Your task to perform on an android device: turn off picture-in-picture Image 0: 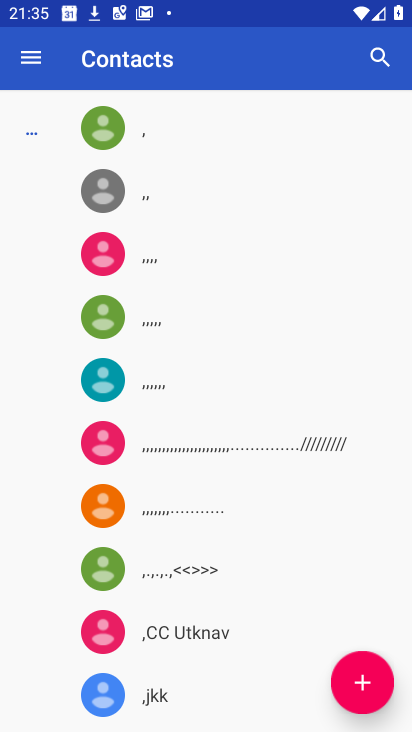
Step 0: press home button
Your task to perform on an android device: turn off picture-in-picture Image 1: 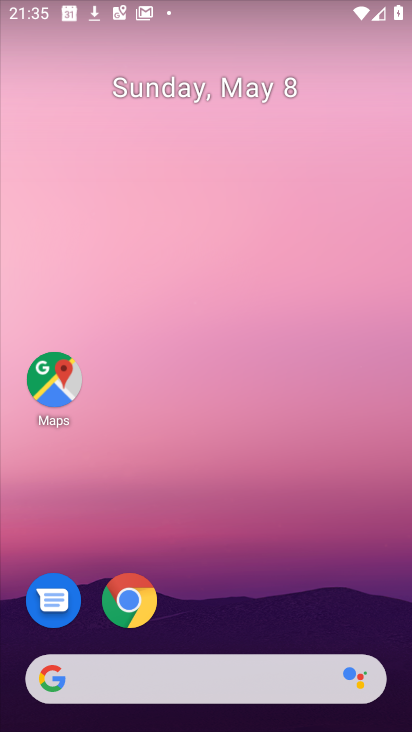
Step 1: drag from (251, 710) to (202, 322)
Your task to perform on an android device: turn off picture-in-picture Image 2: 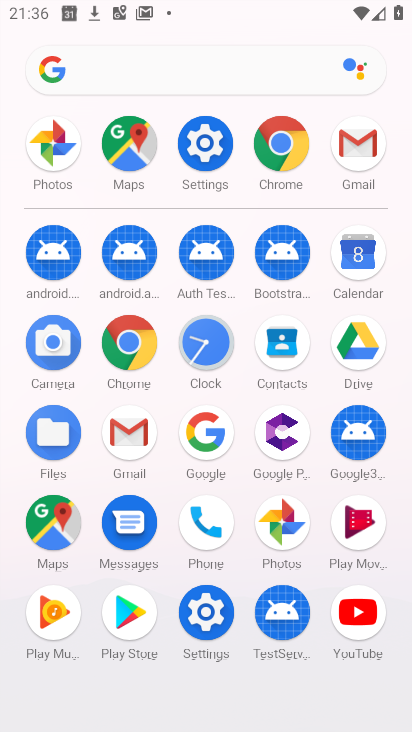
Step 2: click (206, 123)
Your task to perform on an android device: turn off picture-in-picture Image 3: 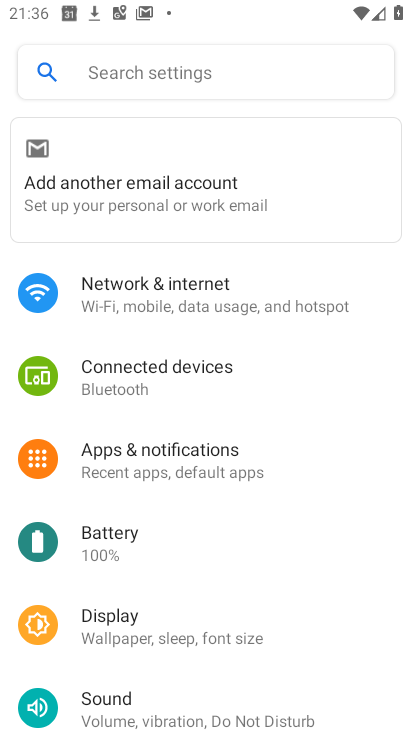
Step 3: click (154, 81)
Your task to perform on an android device: turn off picture-in-picture Image 4: 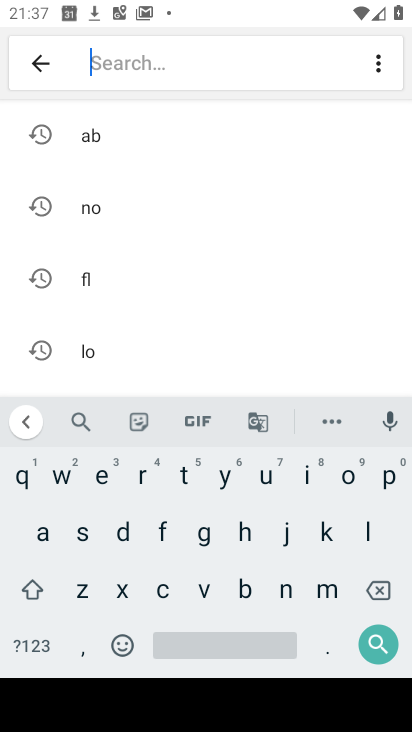
Step 4: click (394, 487)
Your task to perform on an android device: turn off picture-in-picture Image 5: 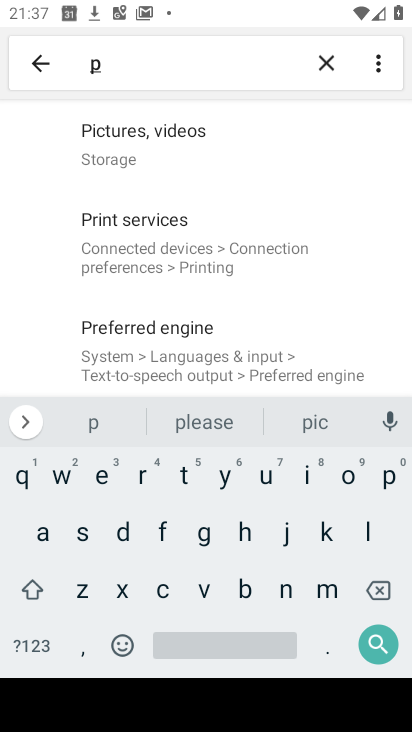
Step 5: click (305, 476)
Your task to perform on an android device: turn off picture-in-picture Image 6: 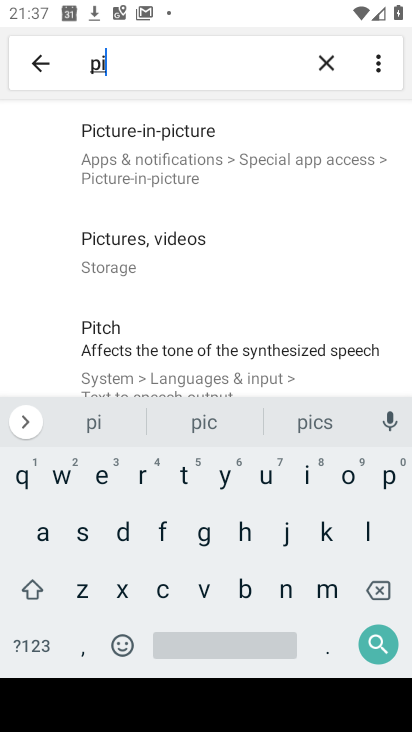
Step 6: click (210, 163)
Your task to perform on an android device: turn off picture-in-picture Image 7: 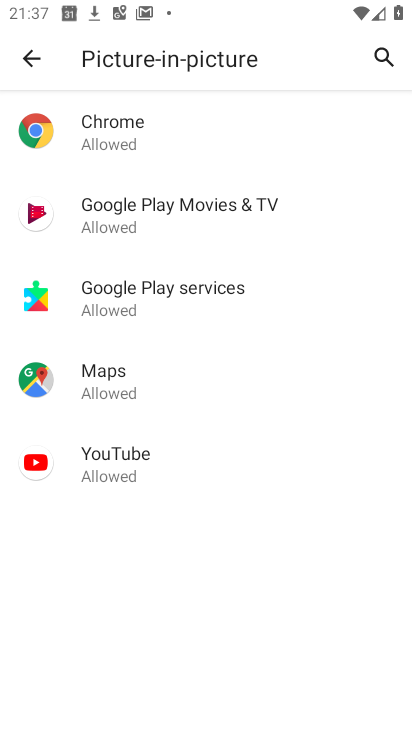
Step 7: task complete